Your task to perform on an android device: allow notifications from all sites in the chrome app Image 0: 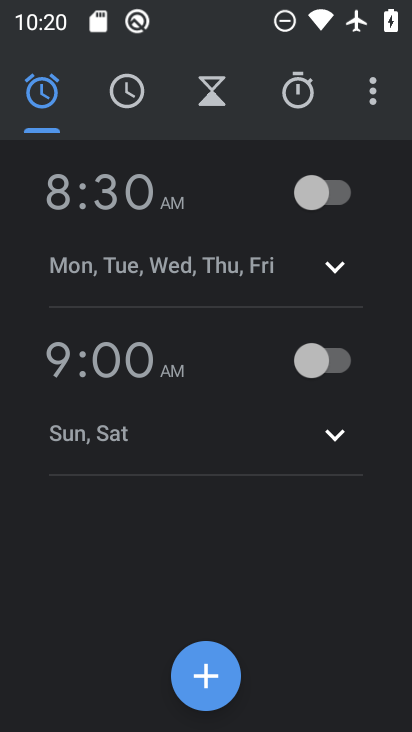
Step 0: press home button
Your task to perform on an android device: allow notifications from all sites in the chrome app Image 1: 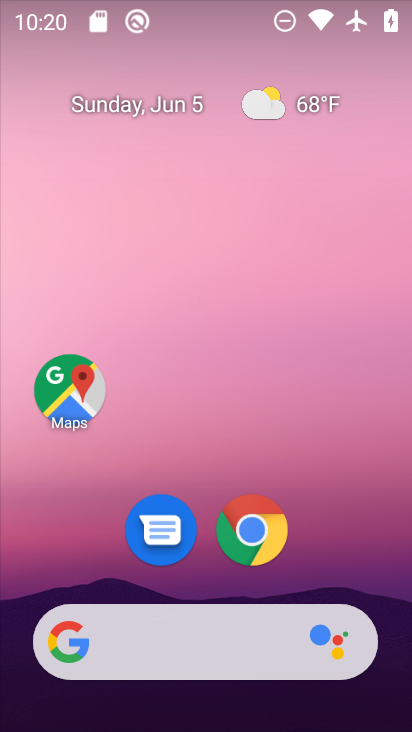
Step 1: click (256, 526)
Your task to perform on an android device: allow notifications from all sites in the chrome app Image 2: 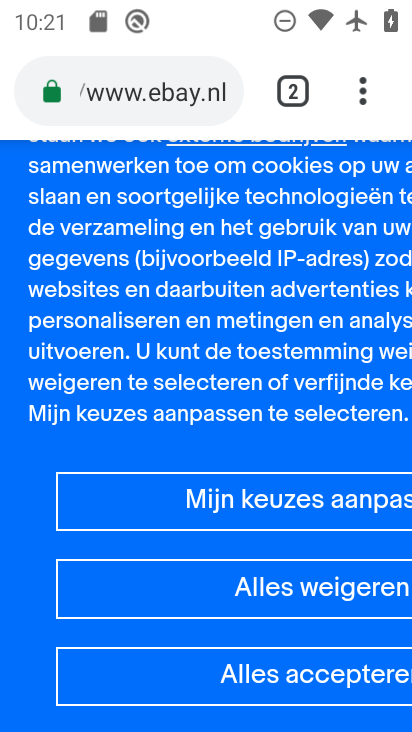
Step 2: click (363, 99)
Your task to perform on an android device: allow notifications from all sites in the chrome app Image 3: 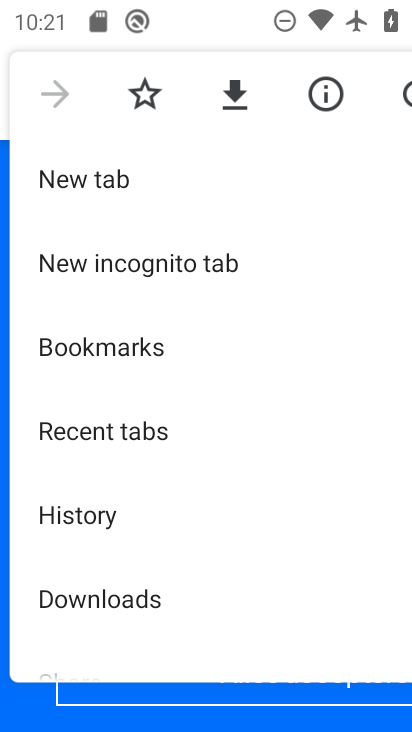
Step 3: click (93, 516)
Your task to perform on an android device: allow notifications from all sites in the chrome app Image 4: 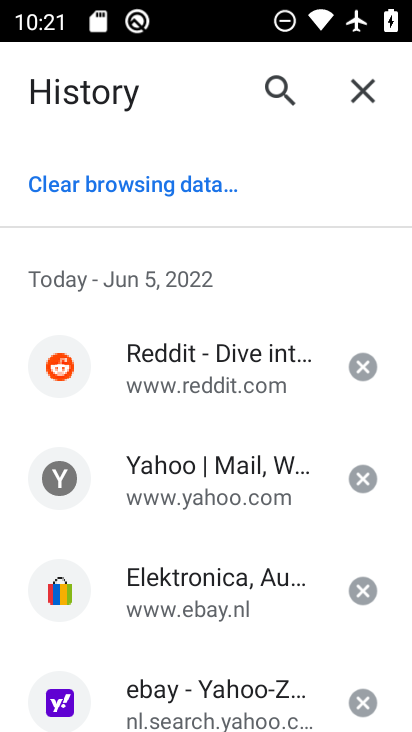
Step 4: click (358, 89)
Your task to perform on an android device: allow notifications from all sites in the chrome app Image 5: 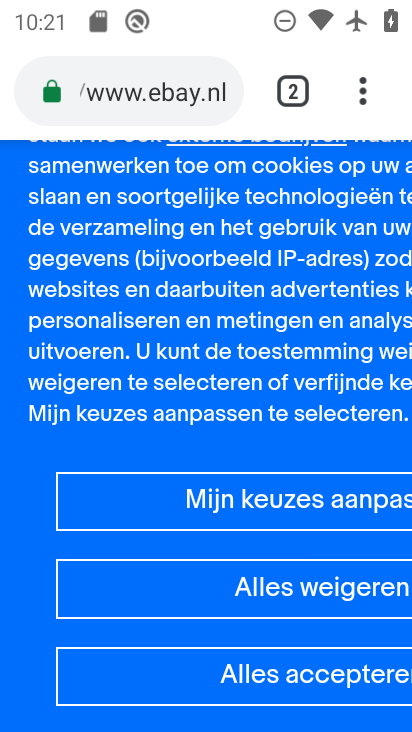
Step 5: click (361, 97)
Your task to perform on an android device: allow notifications from all sites in the chrome app Image 6: 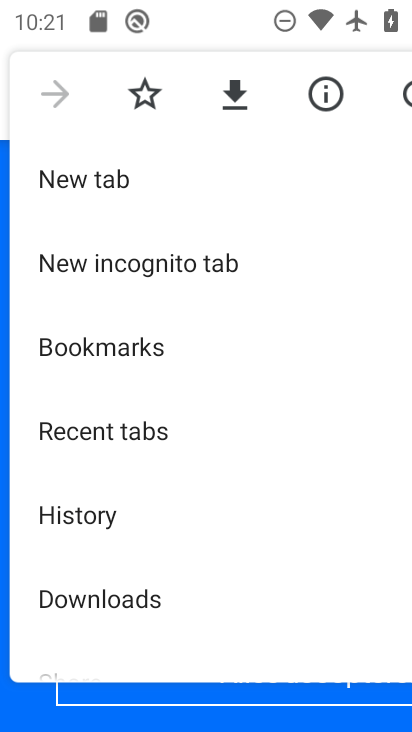
Step 6: drag from (207, 580) to (148, 63)
Your task to perform on an android device: allow notifications from all sites in the chrome app Image 7: 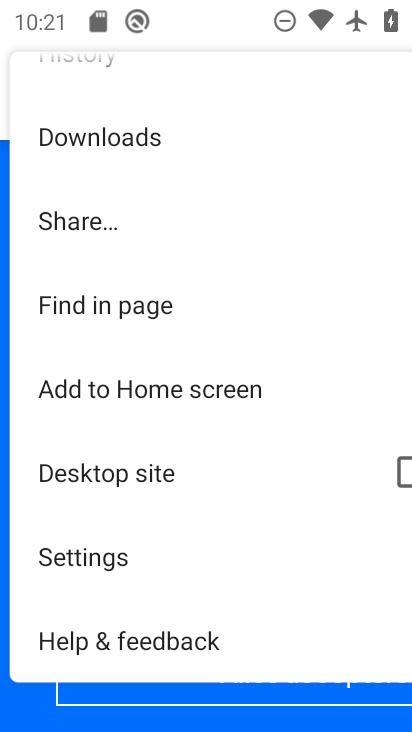
Step 7: click (122, 549)
Your task to perform on an android device: allow notifications from all sites in the chrome app Image 8: 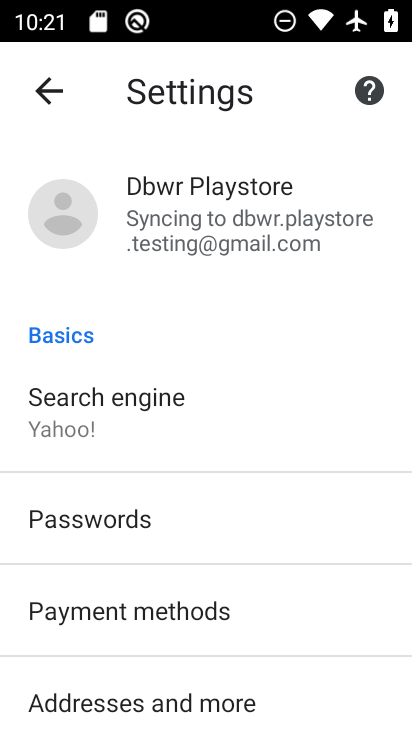
Step 8: drag from (248, 672) to (201, 208)
Your task to perform on an android device: allow notifications from all sites in the chrome app Image 9: 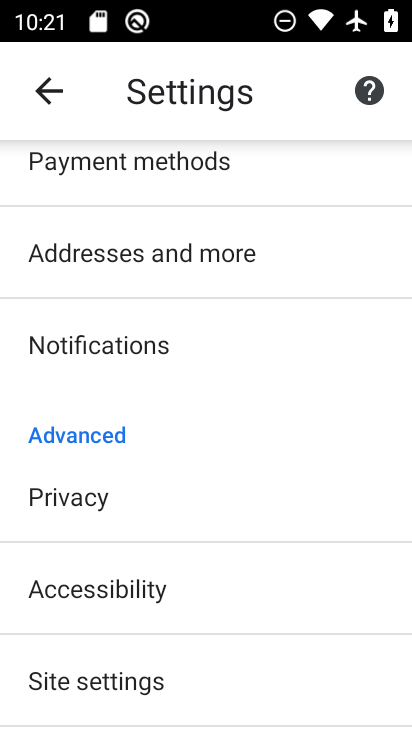
Step 9: drag from (230, 594) to (208, 195)
Your task to perform on an android device: allow notifications from all sites in the chrome app Image 10: 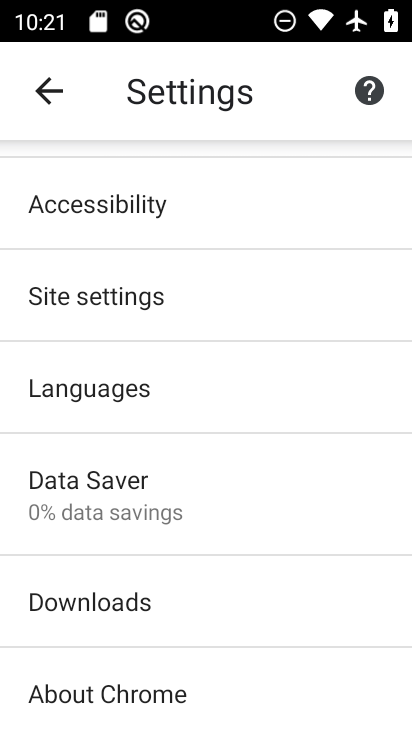
Step 10: click (71, 296)
Your task to perform on an android device: allow notifications from all sites in the chrome app Image 11: 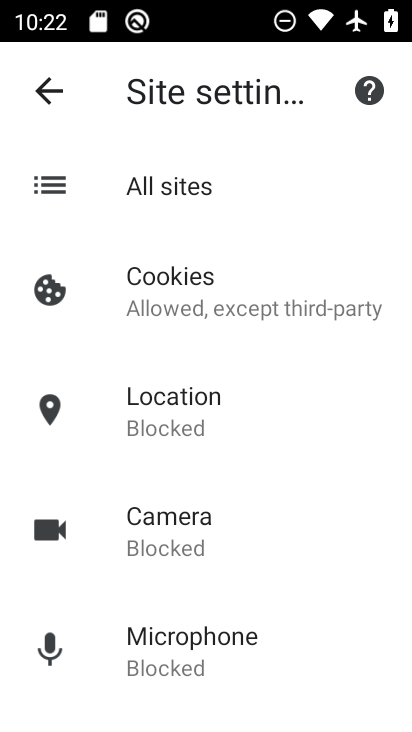
Step 11: drag from (283, 689) to (266, 188)
Your task to perform on an android device: allow notifications from all sites in the chrome app Image 12: 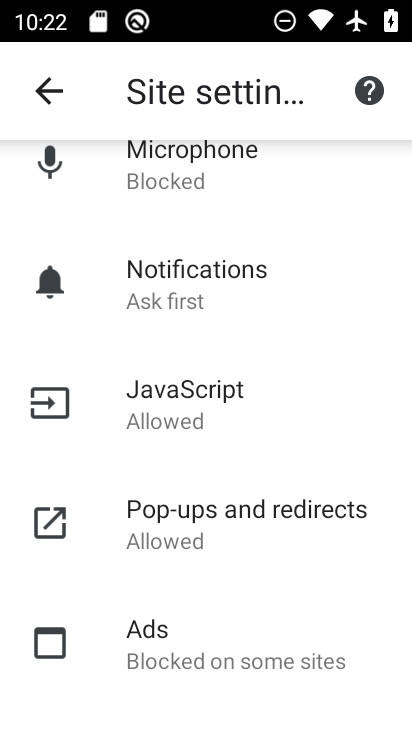
Step 12: click (165, 260)
Your task to perform on an android device: allow notifications from all sites in the chrome app Image 13: 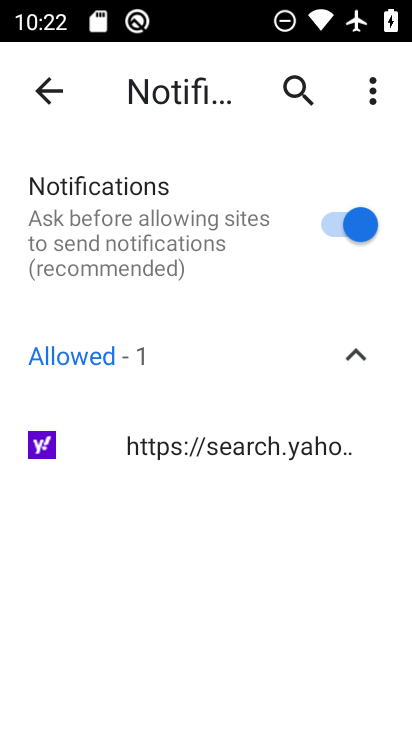
Step 13: task complete